Your task to perform on an android device: remove spam from my inbox in the gmail app Image 0: 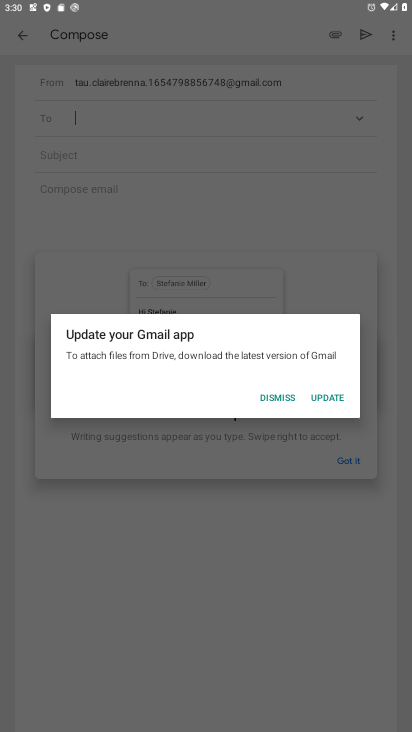
Step 0: press home button
Your task to perform on an android device: remove spam from my inbox in the gmail app Image 1: 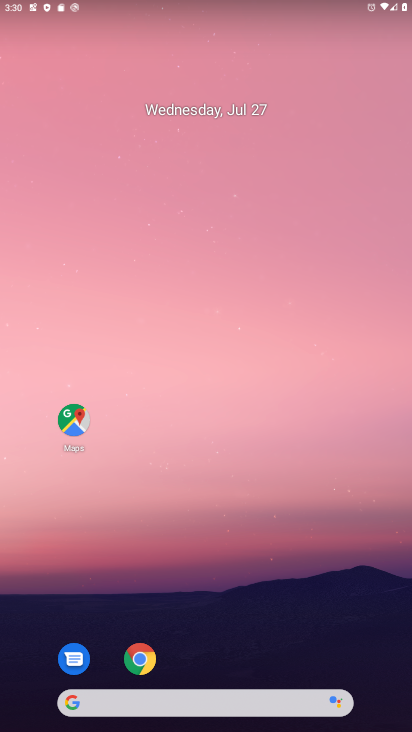
Step 1: drag from (231, 647) to (207, 190)
Your task to perform on an android device: remove spam from my inbox in the gmail app Image 2: 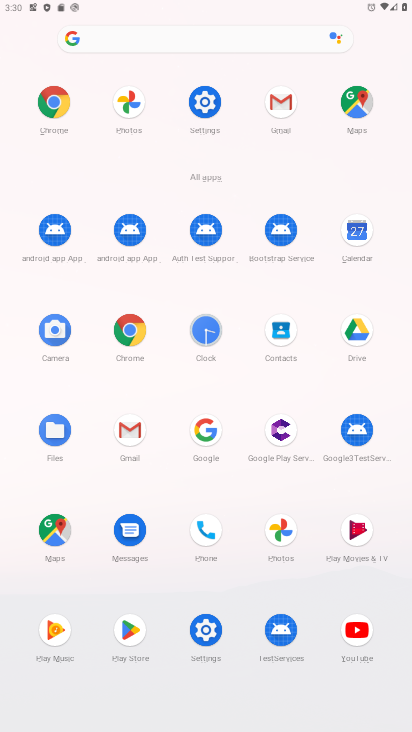
Step 2: click (282, 102)
Your task to perform on an android device: remove spam from my inbox in the gmail app Image 3: 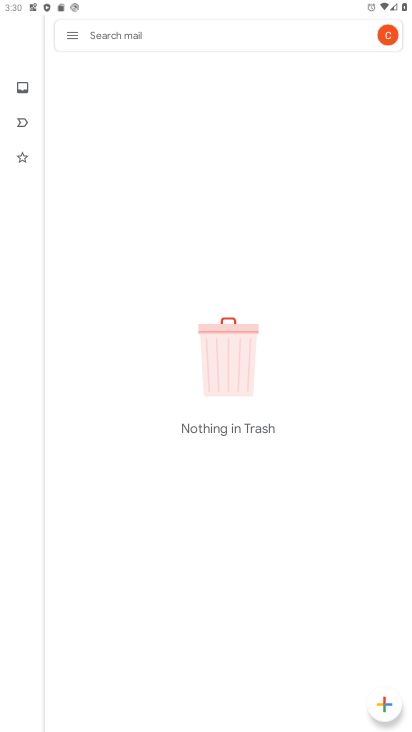
Step 3: click (78, 27)
Your task to perform on an android device: remove spam from my inbox in the gmail app Image 4: 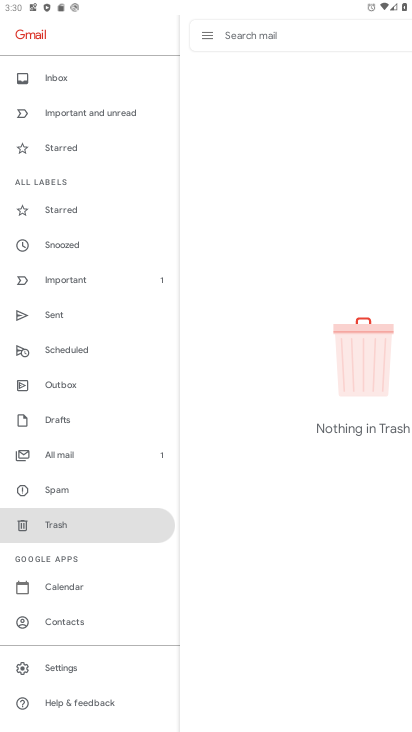
Step 4: click (52, 495)
Your task to perform on an android device: remove spam from my inbox in the gmail app Image 5: 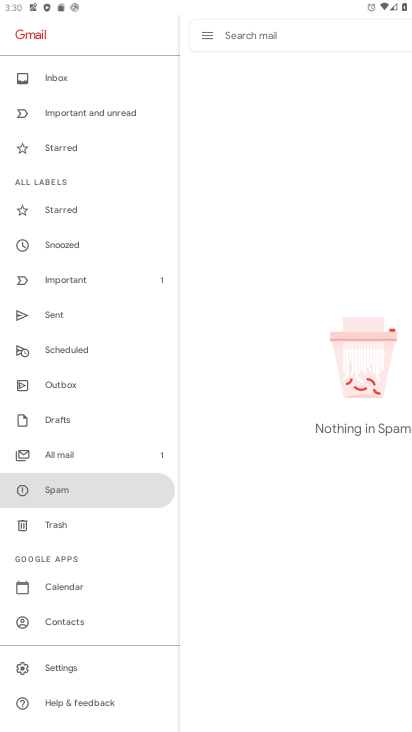
Step 5: task complete